Your task to perform on an android device: open chrome and create a bookmark for the current page Image 0: 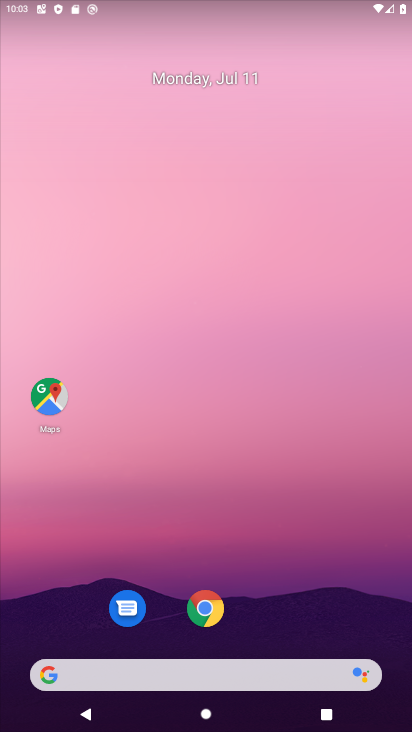
Step 0: click (197, 599)
Your task to perform on an android device: open chrome and create a bookmark for the current page Image 1: 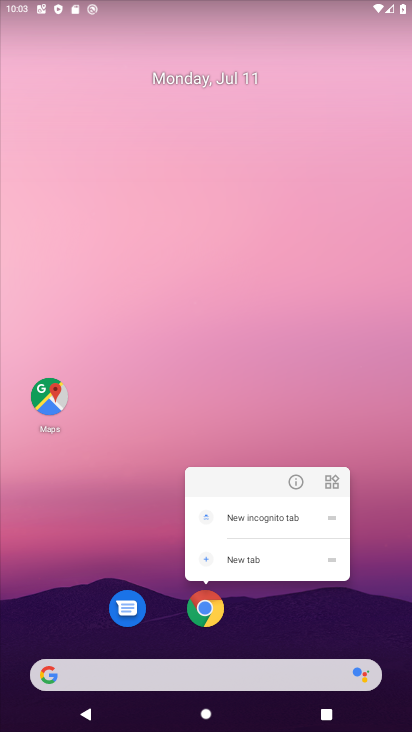
Step 1: click (208, 608)
Your task to perform on an android device: open chrome and create a bookmark for the current page Image 2: 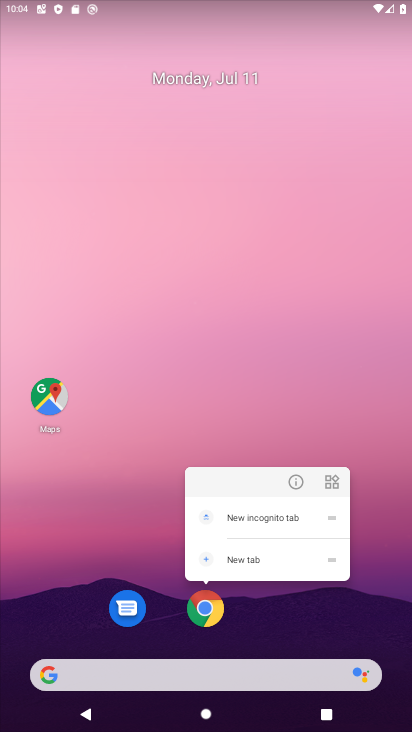
Step 2: click (205, 605)
Your task to perform on an android device: open chrome and create a bookmark for the current page Image 3: 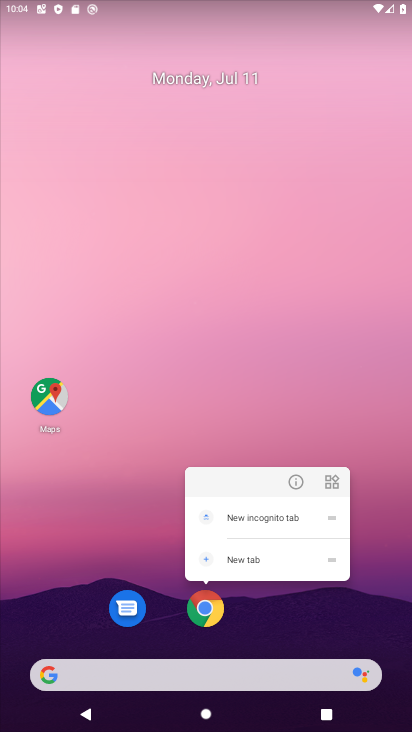
Step 3: click (207, 603)
Your task to perform on an android device: open chrome and create a bookmark for the current page Image 4: 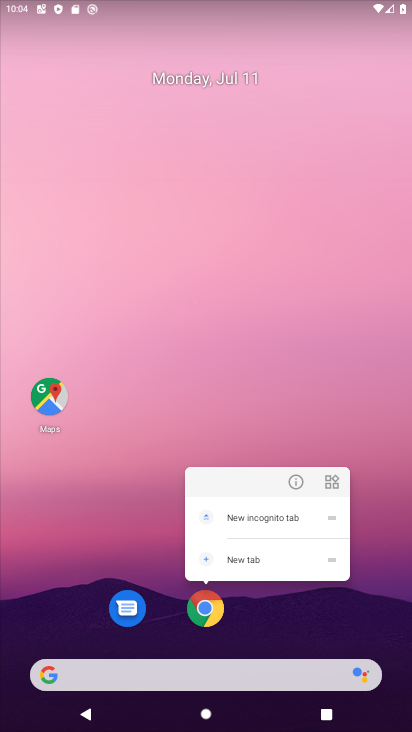
Step 4: click (203, 611)
Your task to perform on an android device: open chrome and create a bookmark for the current page Image 5: 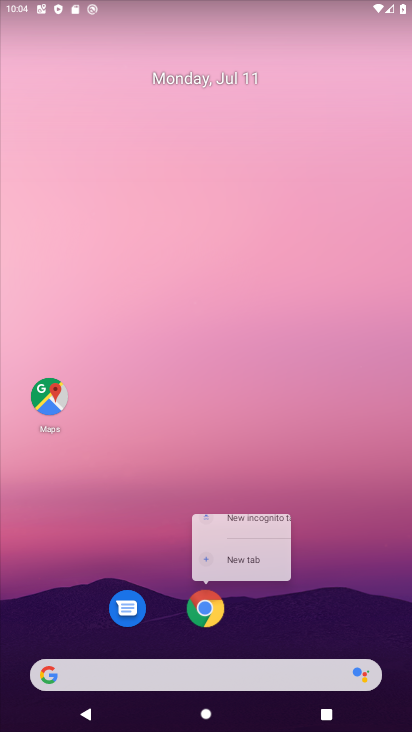
Step 5: click (203, 611)
Your task to perform on an android device: open chrome and create a bookmark for the current page Image 6: 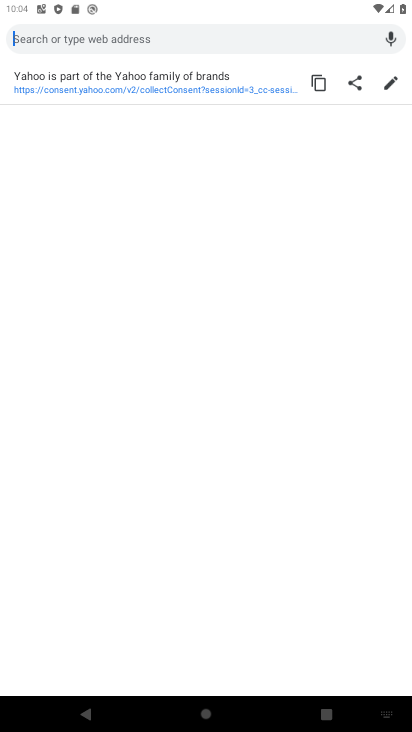
Step 6: click (335, 51)
Your task to perform on an android device: open chrome and create a bookmark for the current page Image 7: 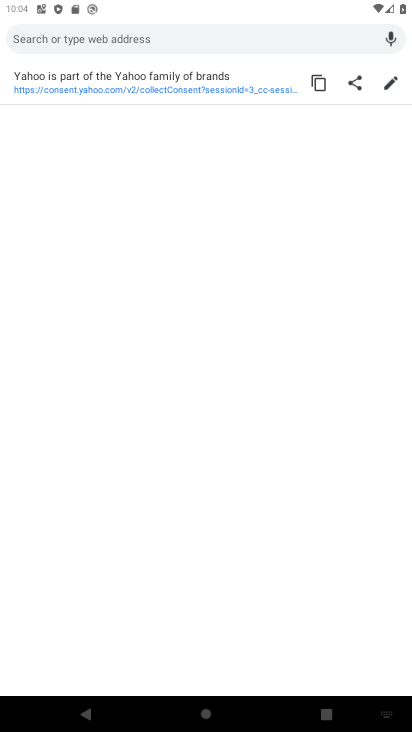
Step 7: click (81, 30)
Your task to perform on an android device: open chrome and create a bookmark for the current page Image 8: 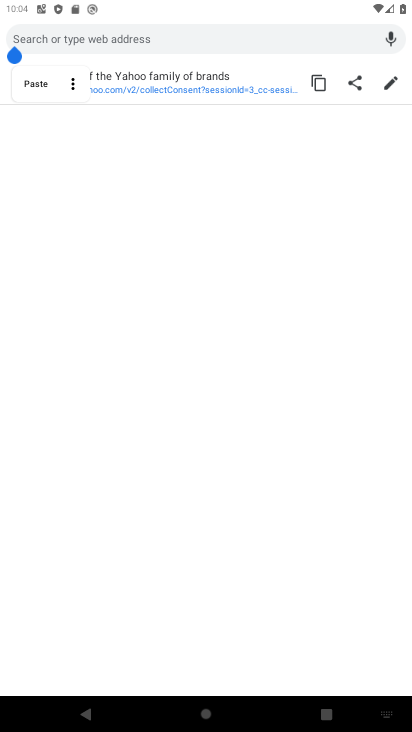
Step 8: click (76, 141)
Your task to perform on an android device: open chrome and create a bookmark for the current page Image 9: 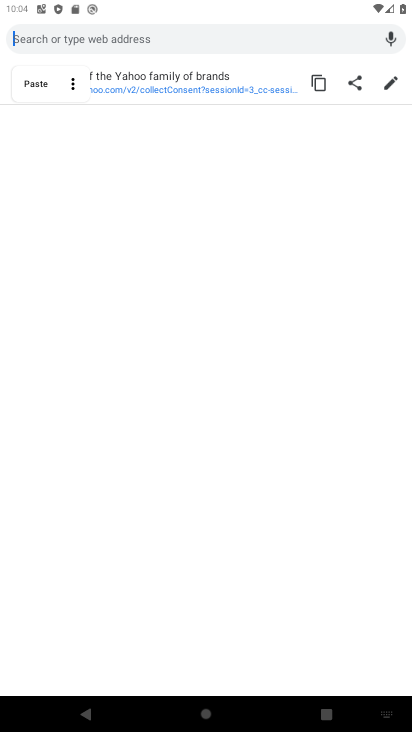
Step 9: click (98, 153)
Your task to perform on an android device: open chrome and create a bookmark for the current page Image 10: 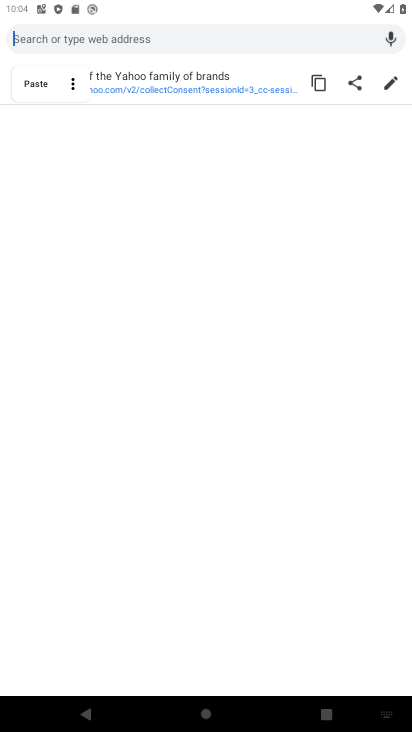
Step 10: task complete